Your task to perform on an android device: add a label to a message in the gmail app Image 0: 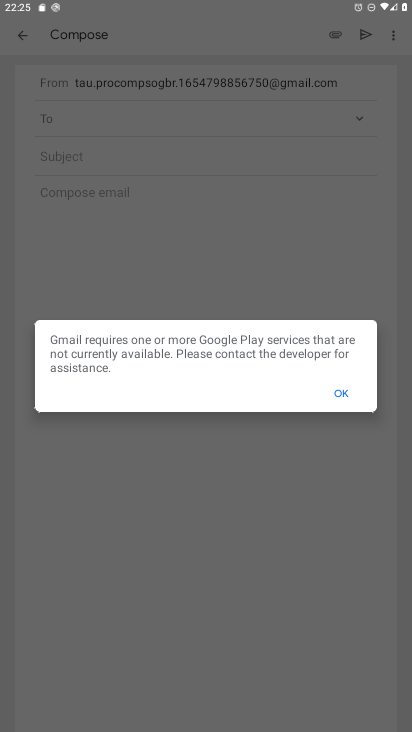
Step 0: press home button
Your task to perform on an android device: add a label to a message in the gmail app Image 1: 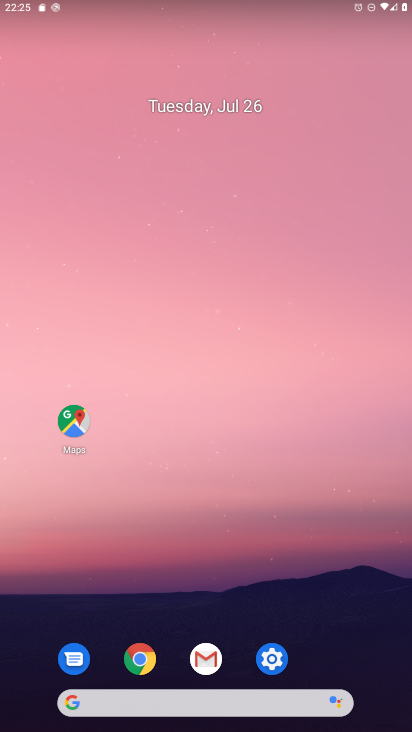
Step 1: click (200, 661)
Your task to perform on an android device: add a label to a message in the gmail app Image 2: 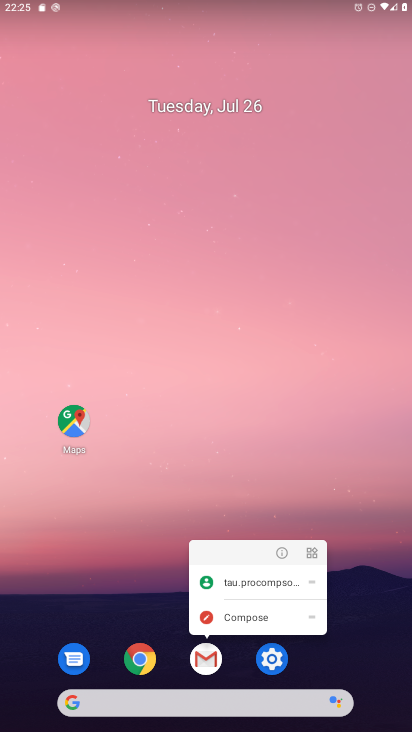
Step 2: click (210, 659)
Your task to perform on an android device: add a label to a message in the gmail app Image 3: 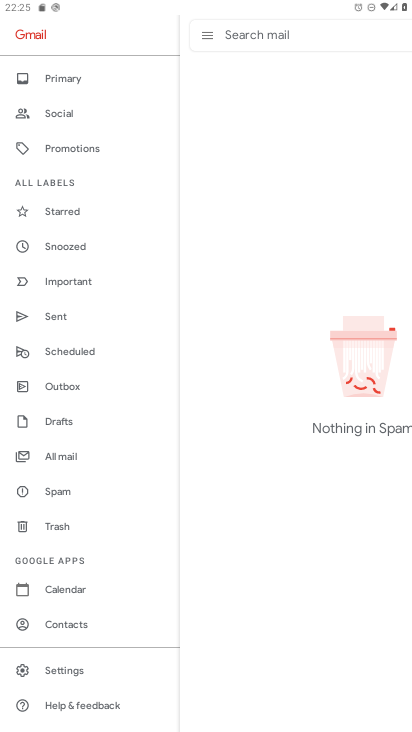
Step 3: click (60, 672)
Your task to perform on an android device: add a label to a message in the gmail app Image 4: 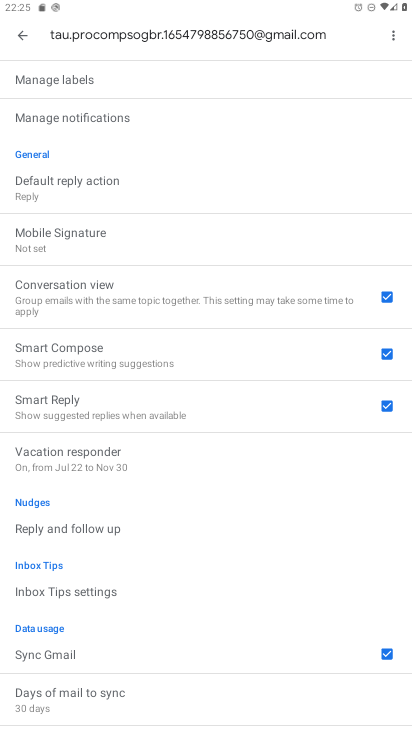
Step 4: click (63, 73)
Your task to perform on an android device: add a label to a message in the gmail app Image 5: 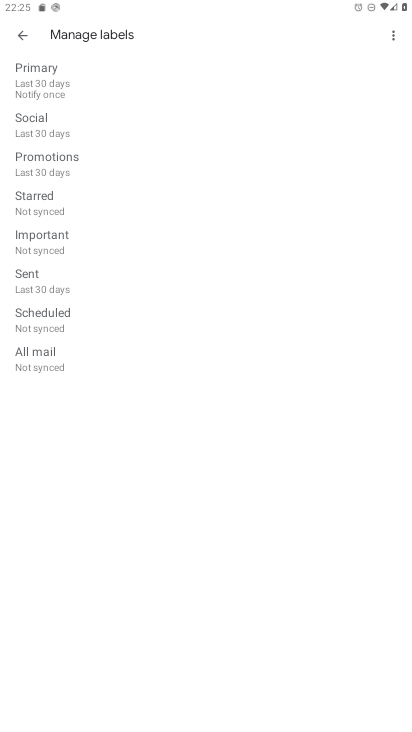
Step 5: click (45, 170)
Your task to perform on an android device: add a label to a message in the gmail app Image 6: 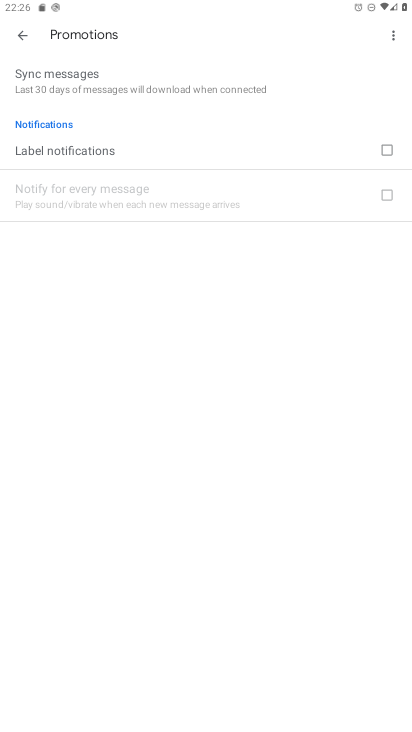
Step 6: task complete